Your task to perform on an android device: What is the news today? Image 0: 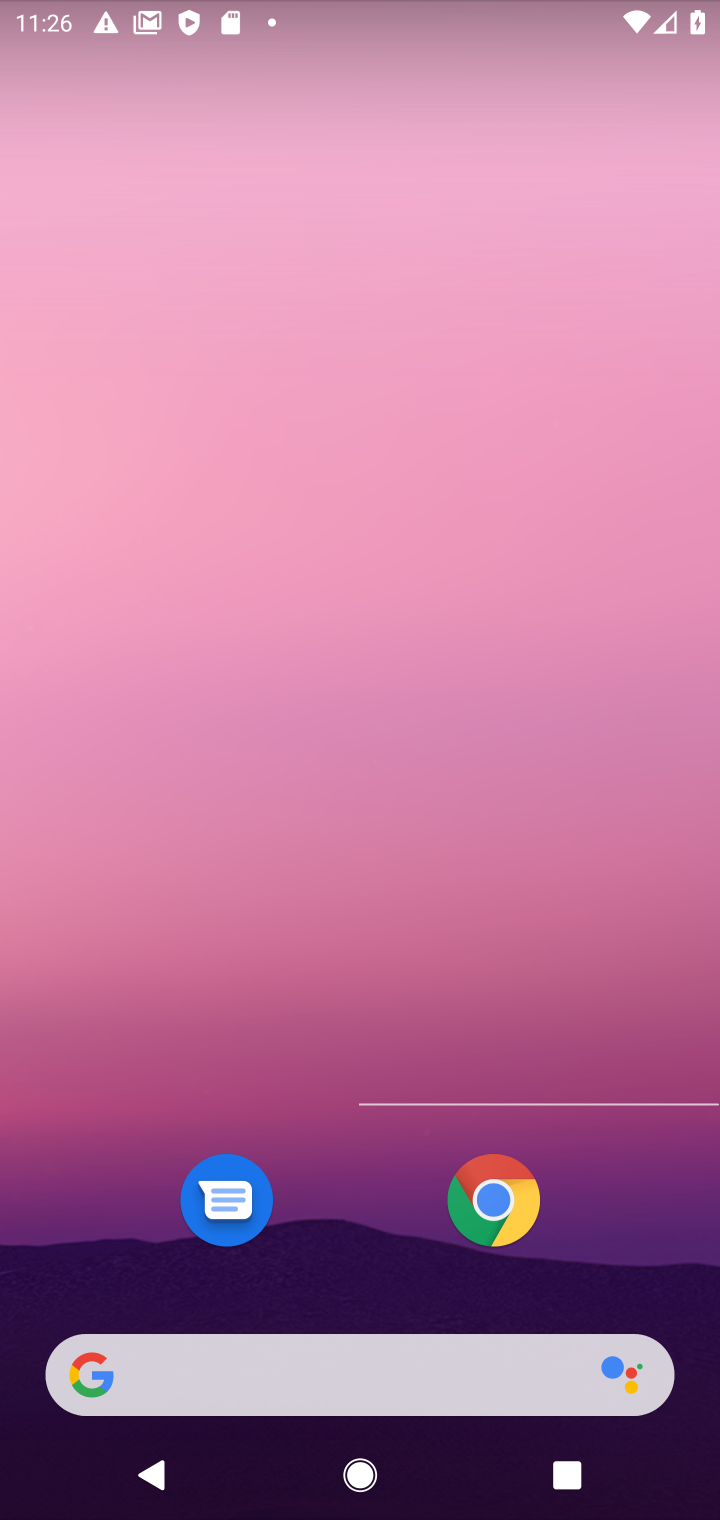
Step 0: drag from (15, 695) to (655, 700)
Your task to perform on an android device: What is the news today? Image 1: 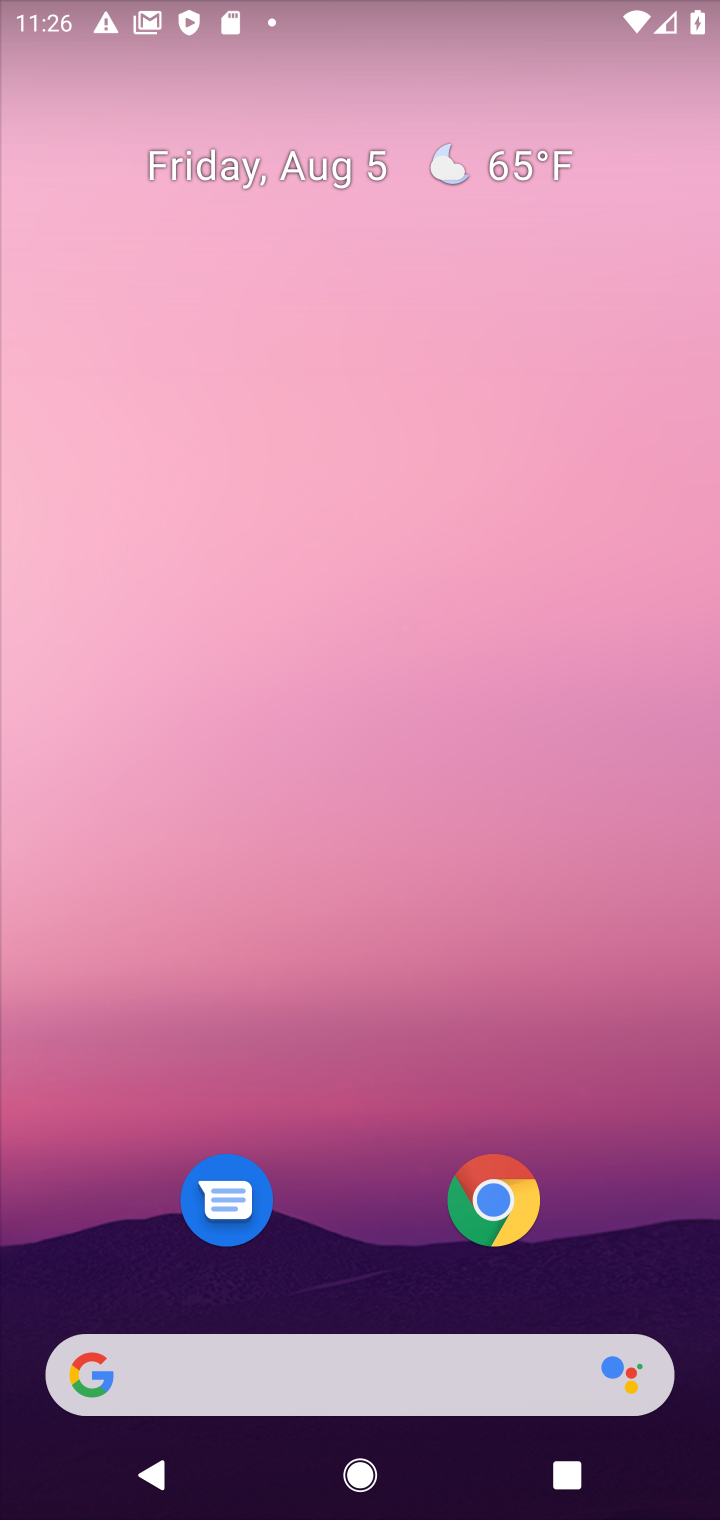
Step 1: task complete